Your task to perform on an android device: toggle notification dots Image 0: 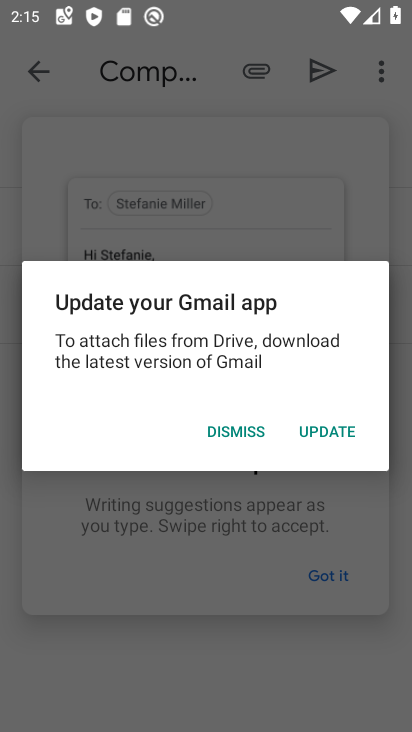
Step 0: drag from (189, 625) to (207, 556)
Your task to perform on an android device: toggle notification dots Image 1: 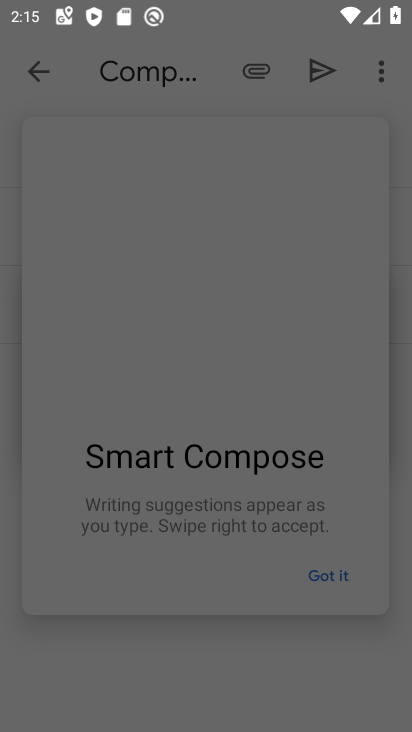
Step 1: press home button
Your task to perform on an android device: toggle notification dots Image 2: 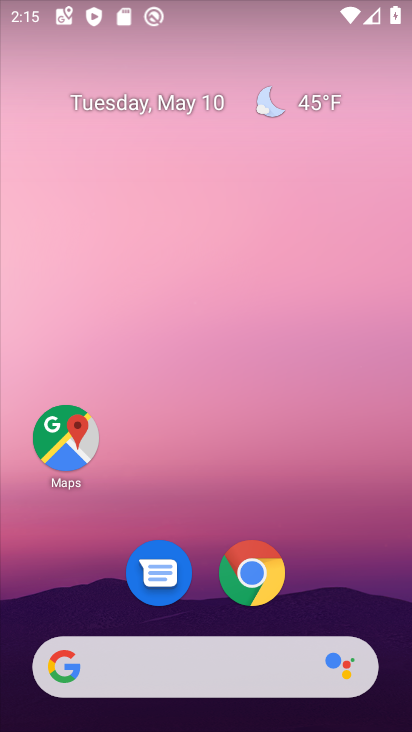
Step 2: drag from (213, 615) to (232, 179)
Your task to perform on an android device: toggle notification dots Image 3: 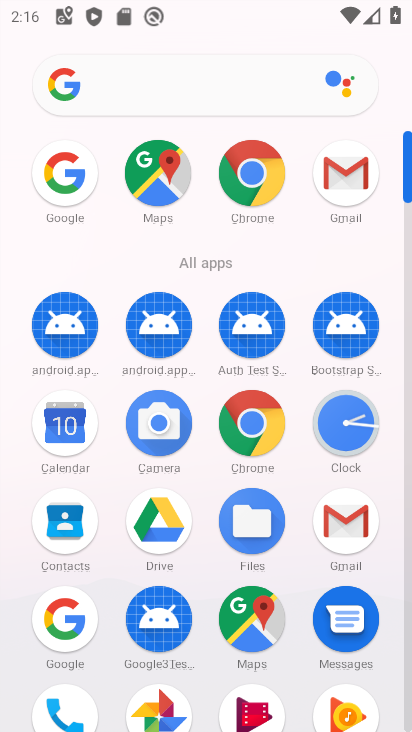
Step 3: drag from (200, 575) to (215, 300)
Your task to perform on an android device: toggle notification dots Image 4: 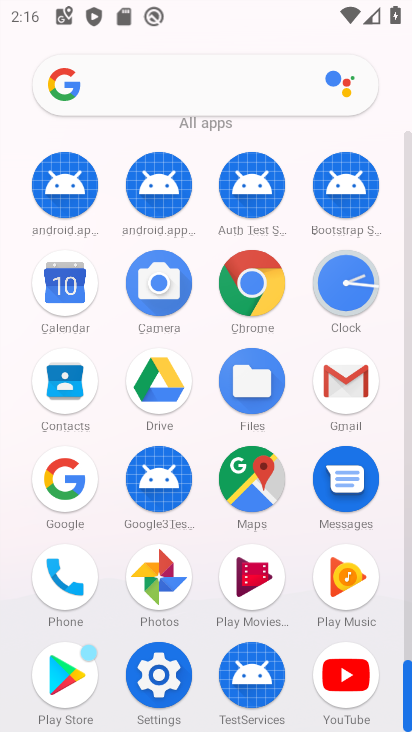
Step 4: click (158, 640)
Your task to perform on an android device: toggle notification dots Image 5: 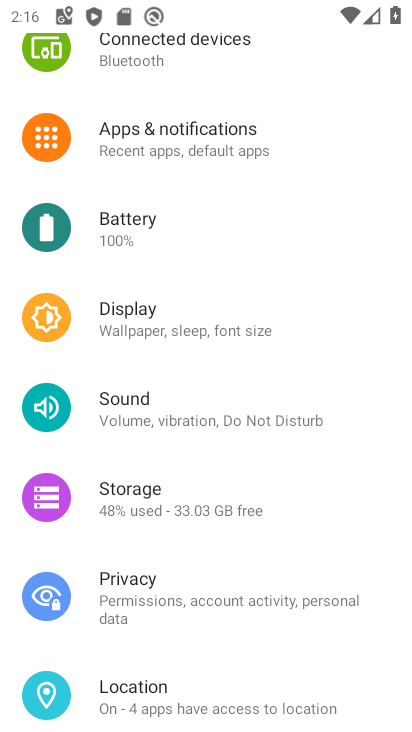
Step 5: click (234, 145)
Your task to perform on an android device: toggle notification dots Image 6: 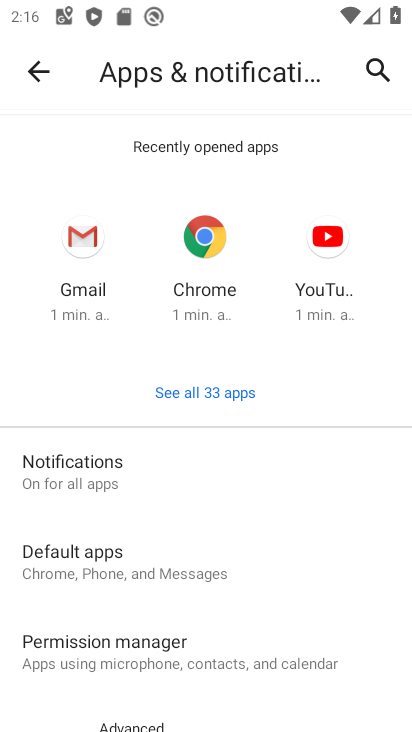
Step 6: click (104, 464)
Your task to perform on an android device: toggle notification dots Image 7: 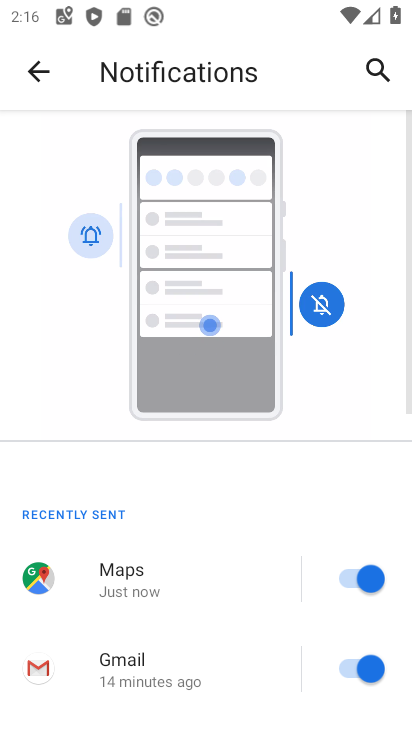
Step 7: drag from (200, 606) to (238, 322)
Your task to perform on an android device: toggle notification dots Image 8: 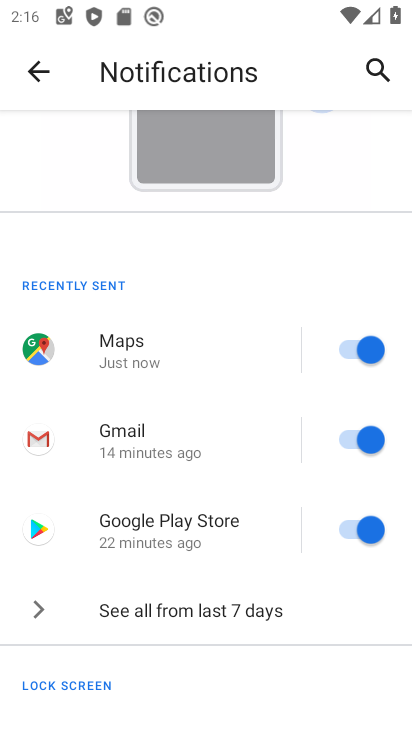
Step 8: drag from (233, 565) to (298, 350)
Your task to perform on an android device: toggle notification dots Image 9: 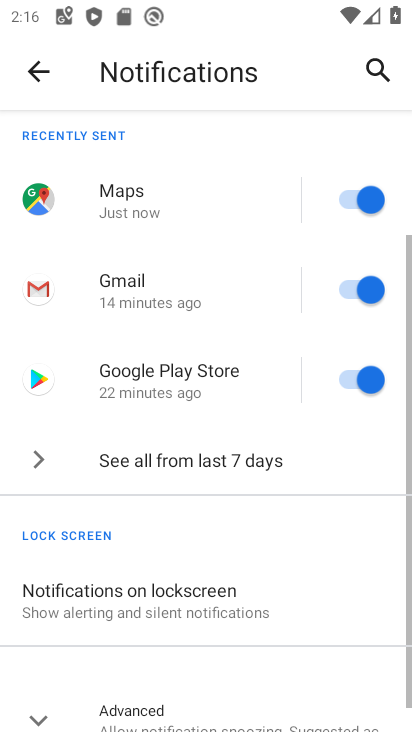
Step 9: drag from (262, 613) to (290, 391)
Your task to perform on an android device: toggle notification dots Image 10: 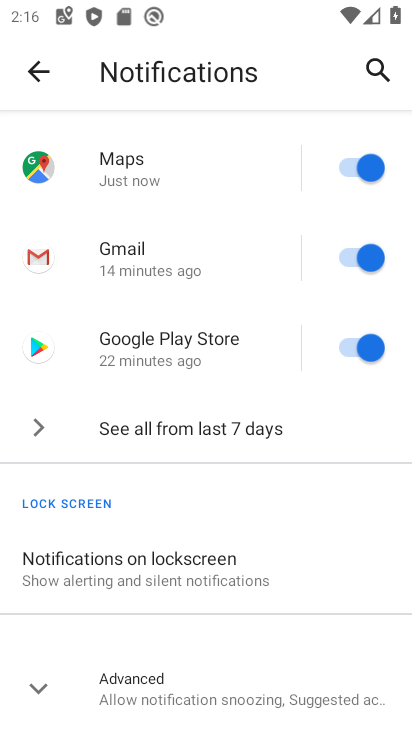
Step 10: drag from (252, 640) to (278, 479)
Your task to perform on an android device: toggle notification dots Image 11: 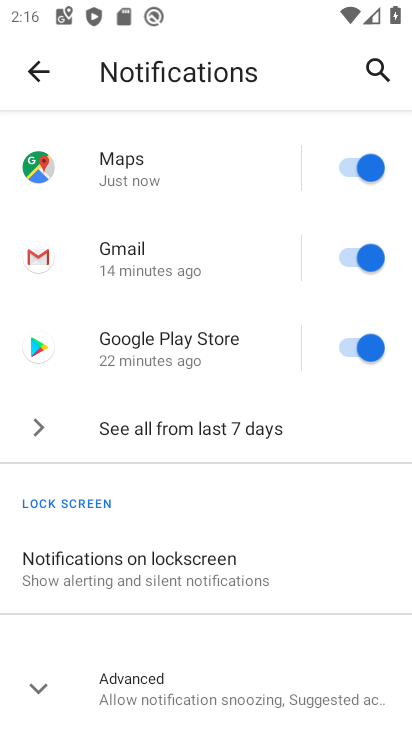
Step 11: click (179, 676)
Your task to perform on an android device: toggle notification dots Image 12: 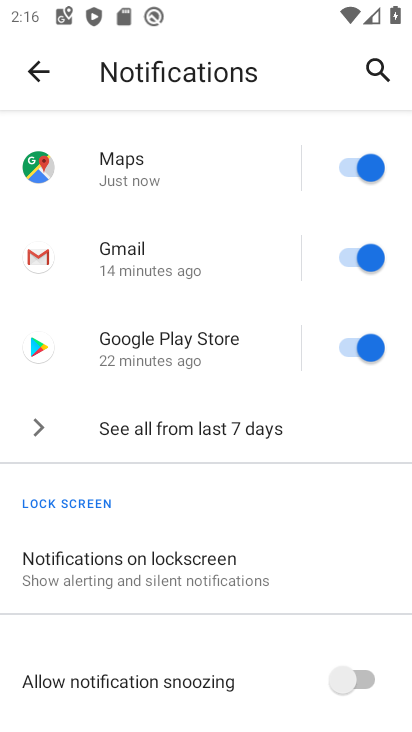
Step 12: drag from (189, 668) to (230, 449)
Your task to perform on an android device: toggle notification dots Image 13: 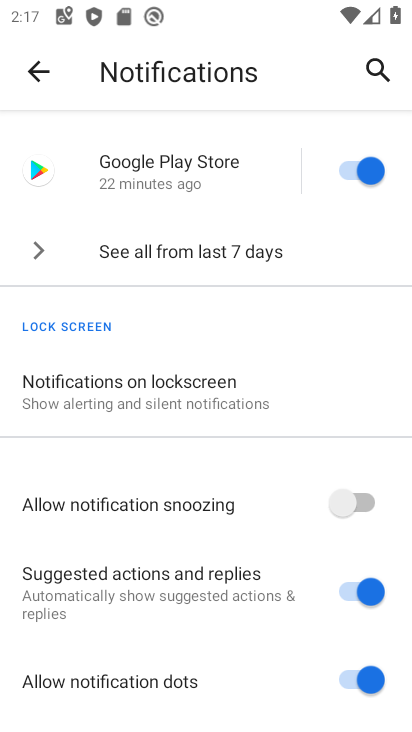
Step 13: click (349, 675)
Your task to perform on an android device: toggle notification dots Image 14: 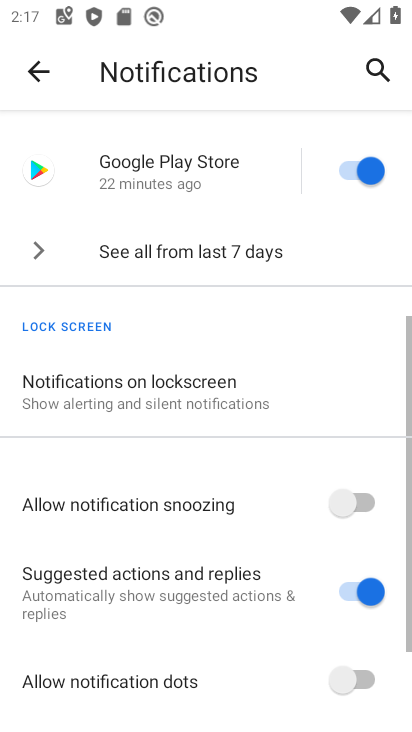
Step 14: task complete